Your task to perform on an android device: Open my contact list Image 0: 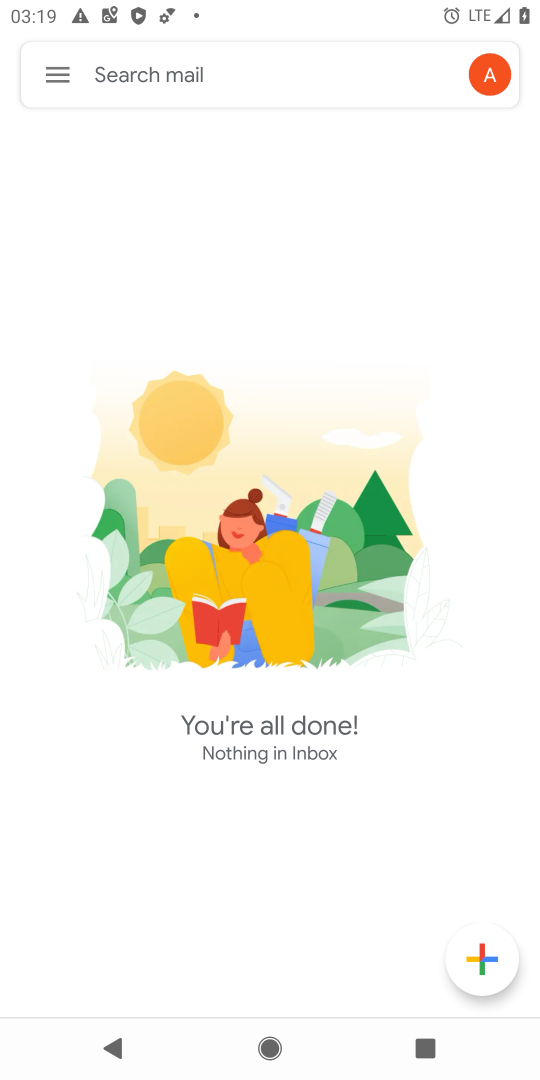
Step 0: press home button
Your task to perform on an android device: Open my contact list Image 1: 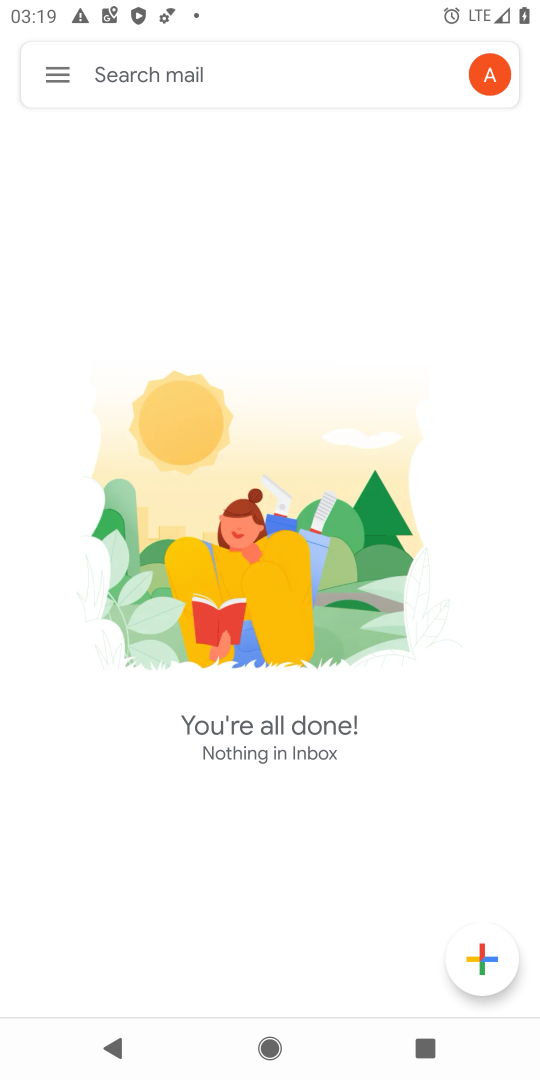
Step 1: press home button
Your task to perform on an android device: Open my contact list Image 2: 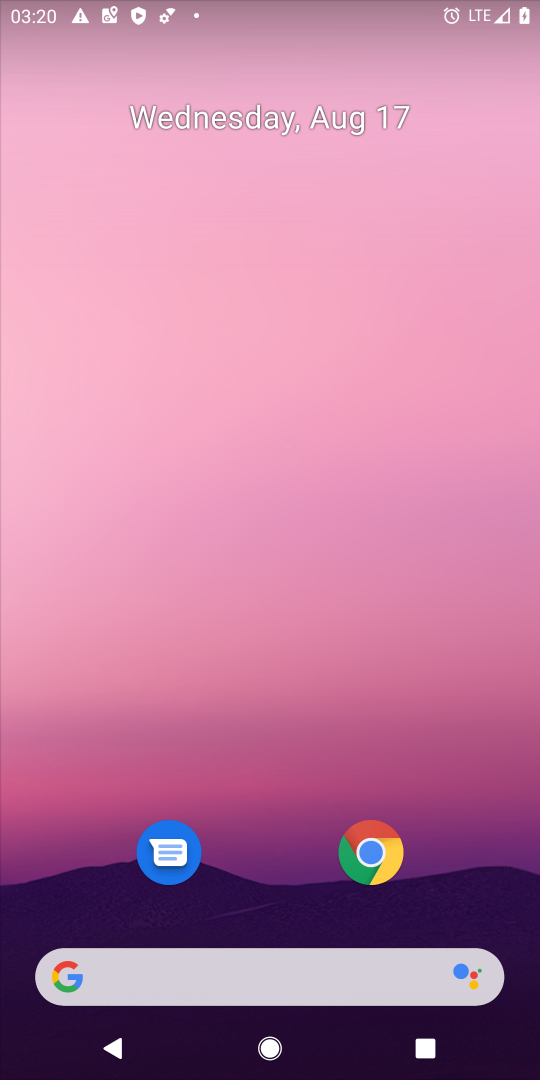
Step 2: drag from (222, 827) to (397, 31)
Your task to perform on an android device: Open my contact list Image 3: 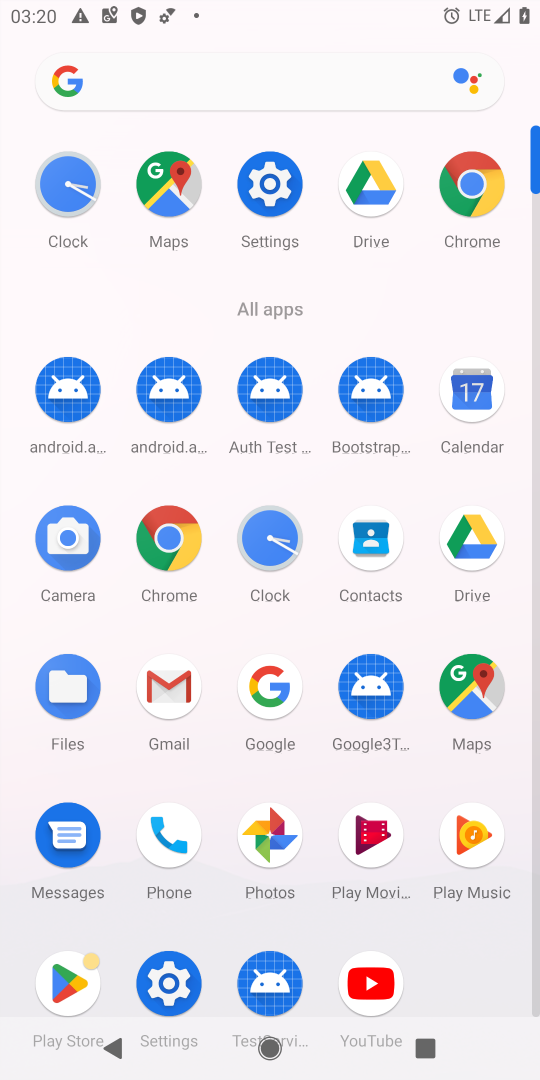
Step 3: click (368, 529)
Your task to perform on an android device: Open my contact list Image 4: 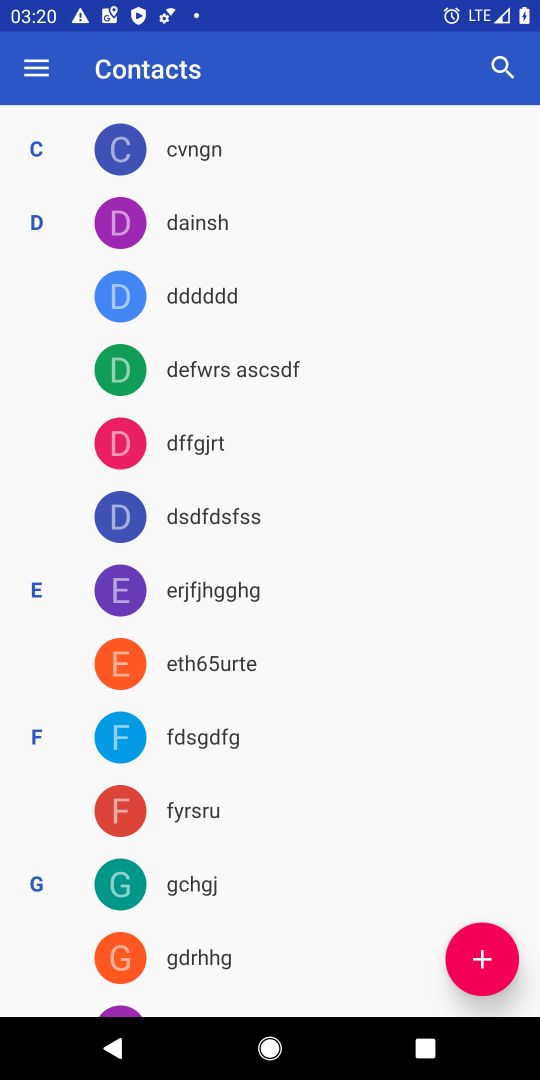
Step 4: task complete